Your task to perform on an android device: Open the map Image 0: 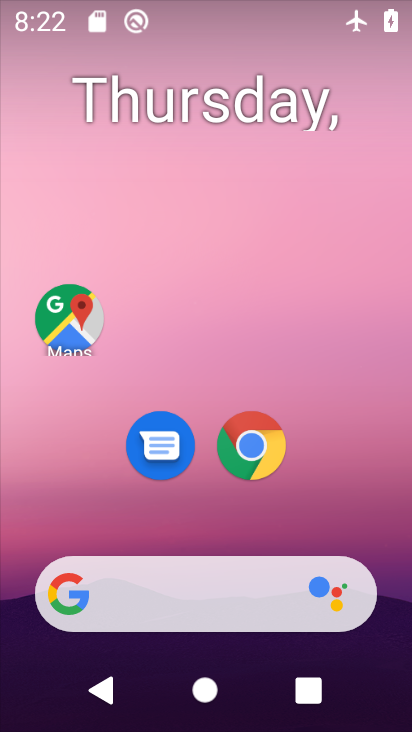
Step 0: click (80, 314)
Your task to perform on an android device: Open the map Image 1: 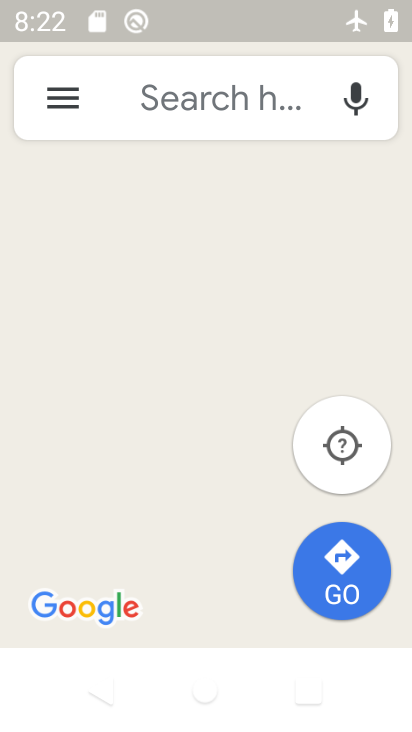
Step 1: task complete